Your task to perform on an android device: delete browsing data in the chrome app Image 0: 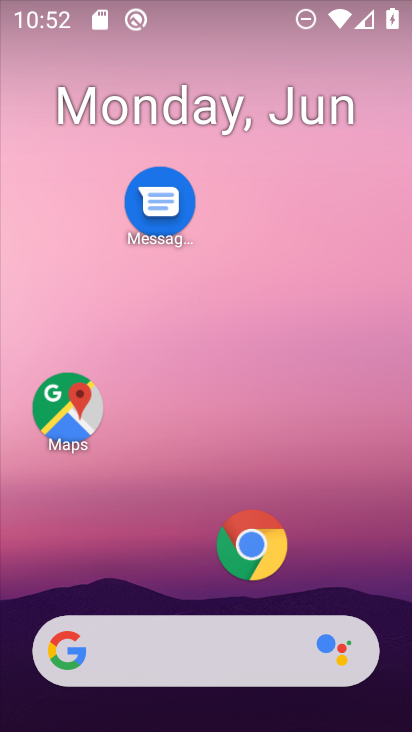
Step 0: drag from (177, 593) to (208, 200)
Your task to perform on an android device: delete browsing data in the chrome app Image 1: 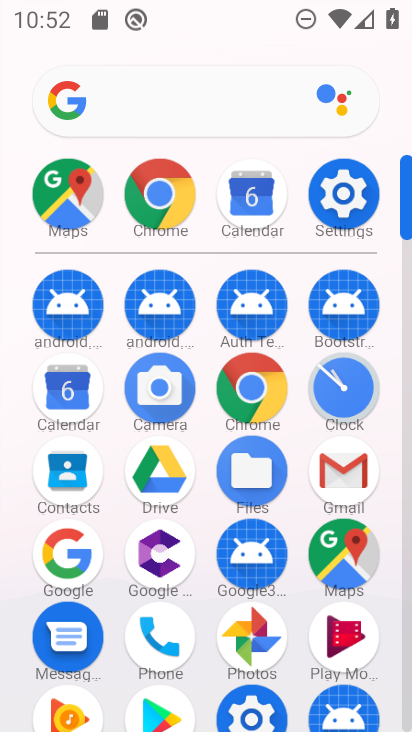
Step 1: click (162, 194)
Your task to perform on an android device: delete browsing data in the chrome app Image 2: 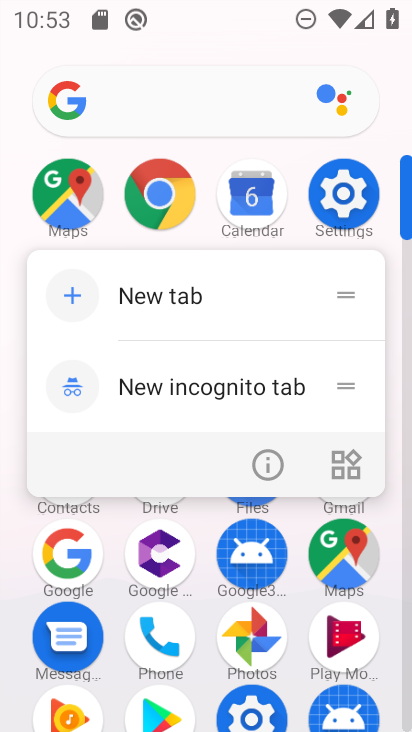
Step 2: click (164, 191)
Your task to perform on an android device: delete browsing data in the chrome app Image 3: 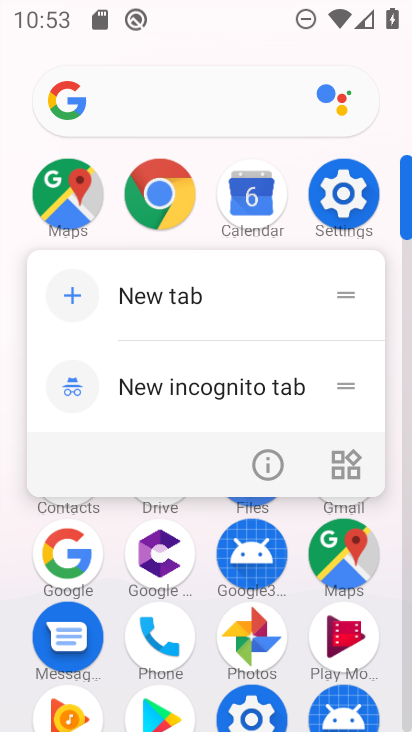
Step 3: click (261, 473)
Your task to perform on an android device: delete browsing data in the chrome app Image 4: 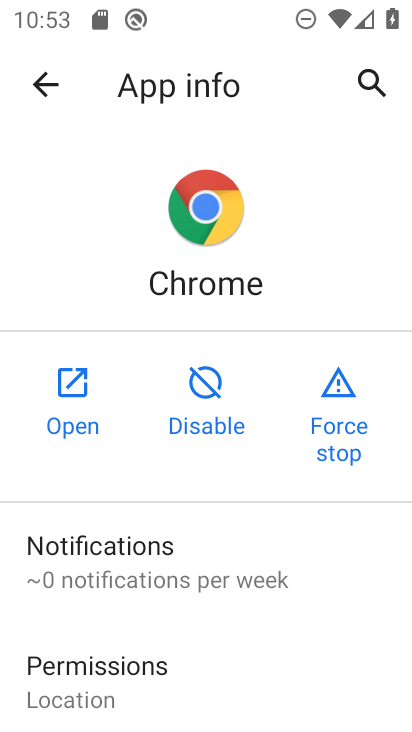
Step 4: click (55, 391)
Your task to perform on an android device: delete browsing data in the chrome app Image 5: 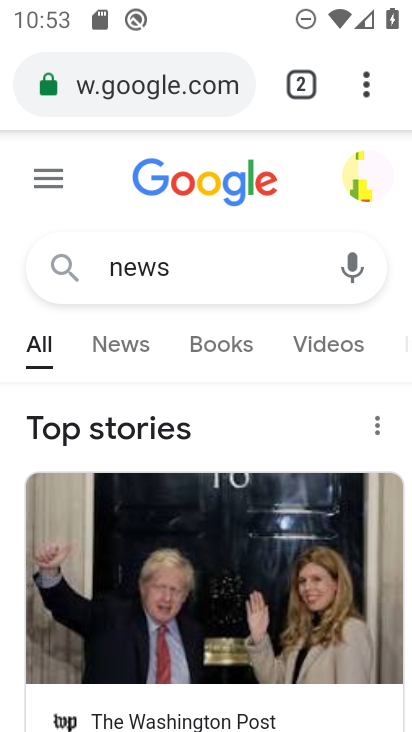
Step 5: click (373, 85)
Your task to perform on an android device: delete browsing data in the chrome app Image 6: 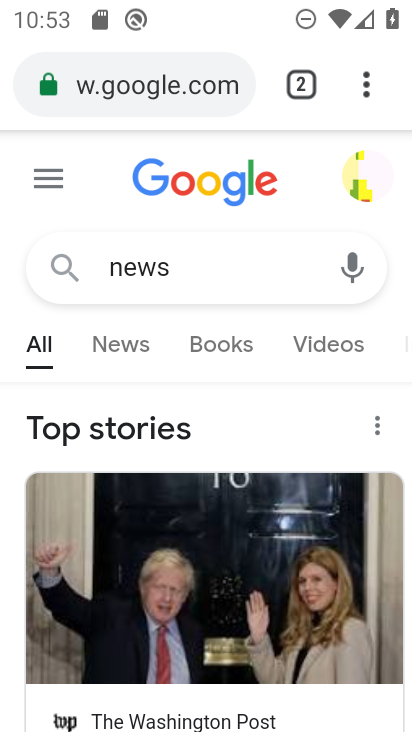
Step 6: click (367, 86)
Your task to perform on an android device: delete browsing data in the chrome app Image 7: 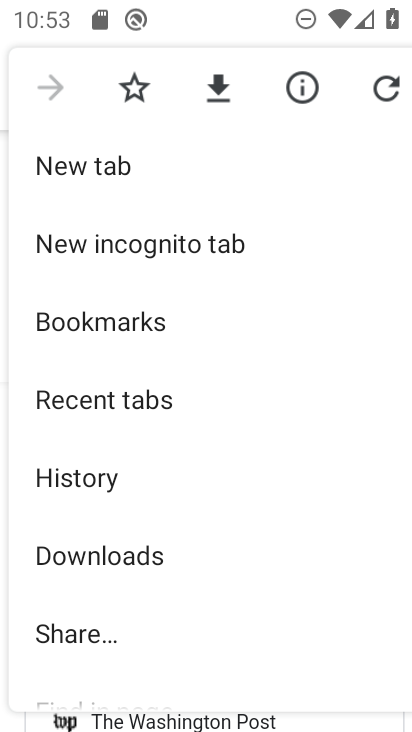
Step 7: click (95, 486)
Your task to perform on an android device: delete browsing data in the chrome app Image 8: 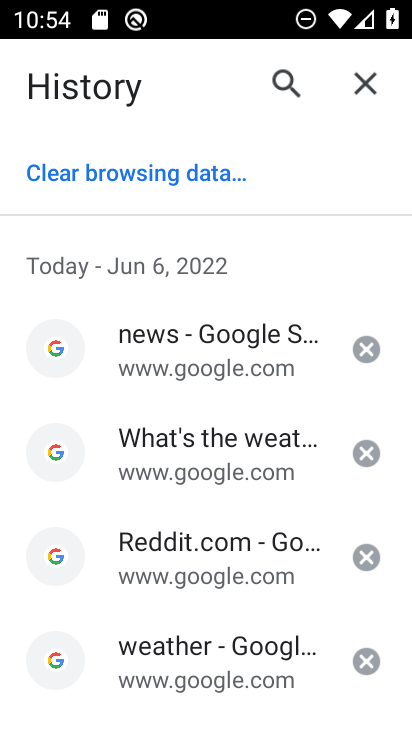
Step 8: click (125, 181)
Your task to perform on an android device: delete browsing data in the chrome app Image 9: 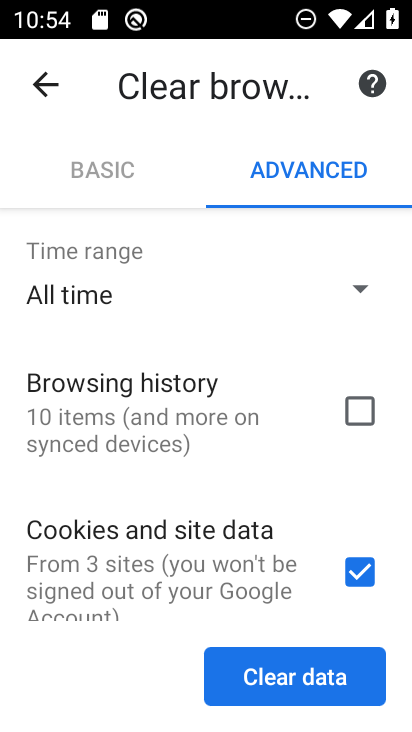
Step 9: click (373, 404)
Your task to perform on an android device: delete browsing data in the chrome app Image 10: 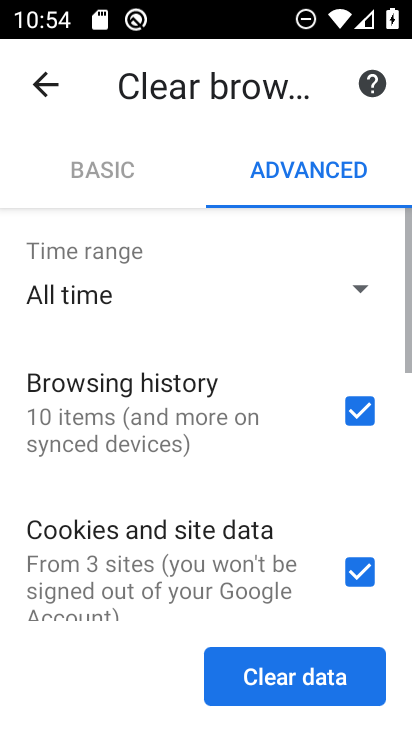
Step 10: click (354, 574)
Your task to perform on an android device: delete browsing data in the chrome app Image 11: 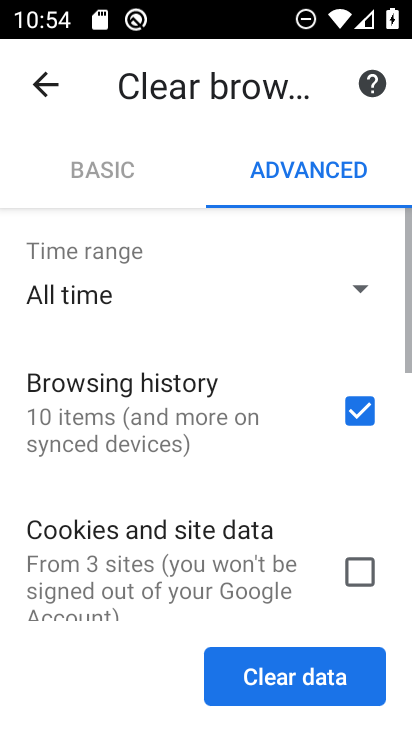
Step 11: drag from (285, 444) to (320, 193)
Your task to perform on an android device: delete browsing data in the chrome app Image 12: 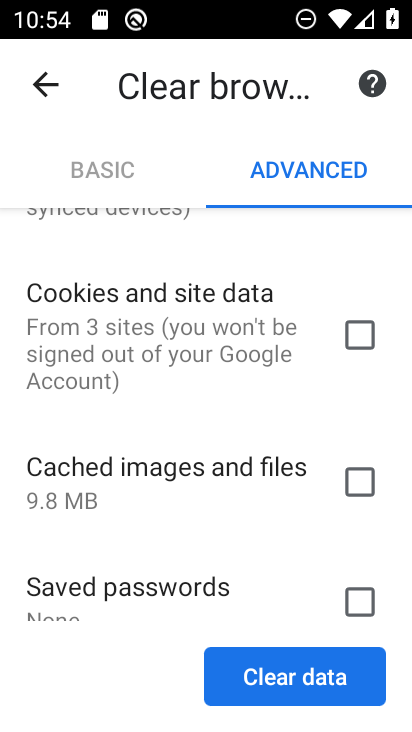
Step 12: click (283, 683)
Your task to perform on an android device: delete browsing data in the chrome app Image 13: 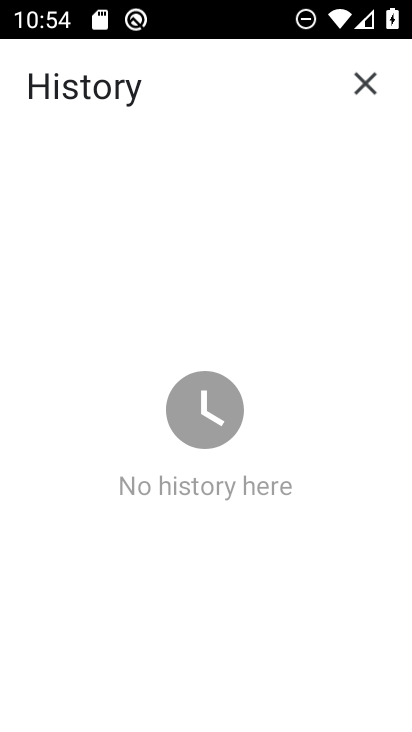
Step 13: task complete